Your task to perform on an android device: Open the calendar and show me this week's events Image 0: 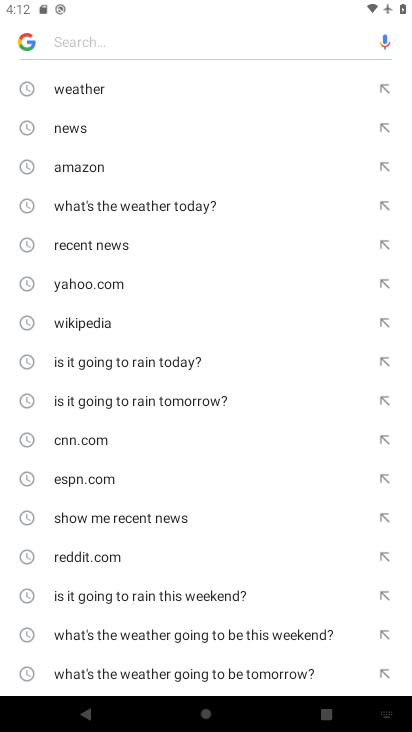
Step 0: drag from (265, 598) to (161, 40)
Your task to perform on an android device: Open the calendar and show me this week's events Image 1: 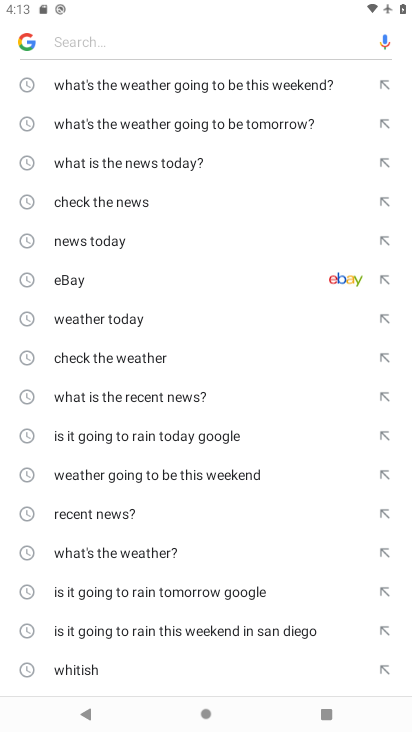
Step 1: press home button
Your task to perform on an android device: Open the calendar and show me this week's events Image 2: 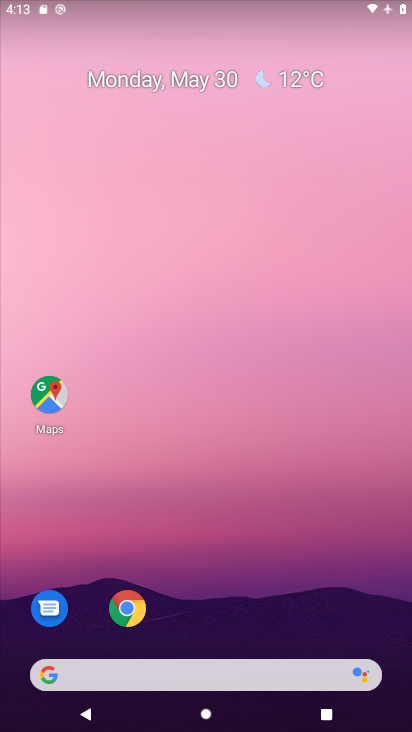
Step 2: click (160, 78)
Your task to perform on an android device: Open the calendar and show me this week's events Image 3: 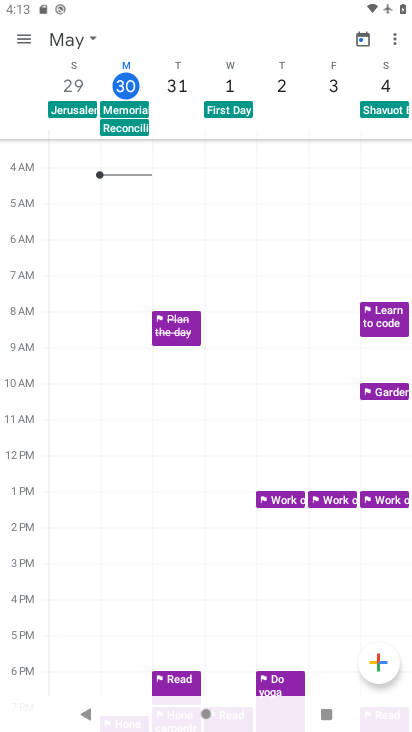
Step 3: task complete